Your task to perform on an android device: Show me the alarms in the clock app Image 0: 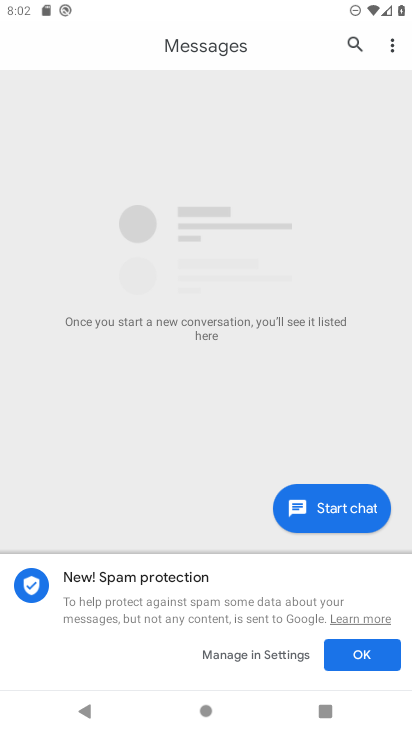
Step 0: press home button
Your task to perform on an android device: Show me the alarms in the clock app Image 1: 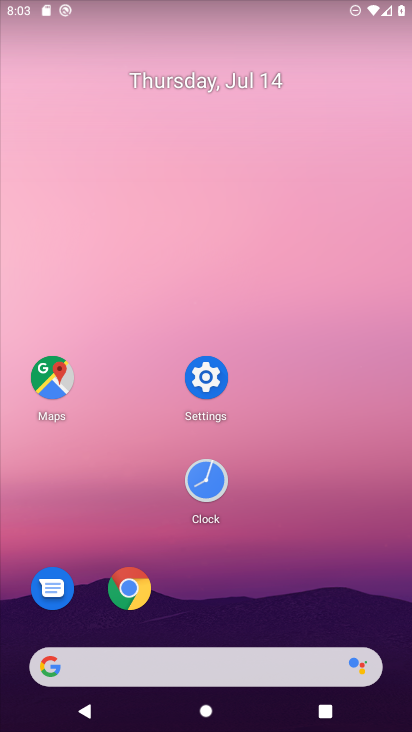
Step 1: click (200, 476)
Your task to perform on an android device: Show me the alarms in the clock app Image 2: 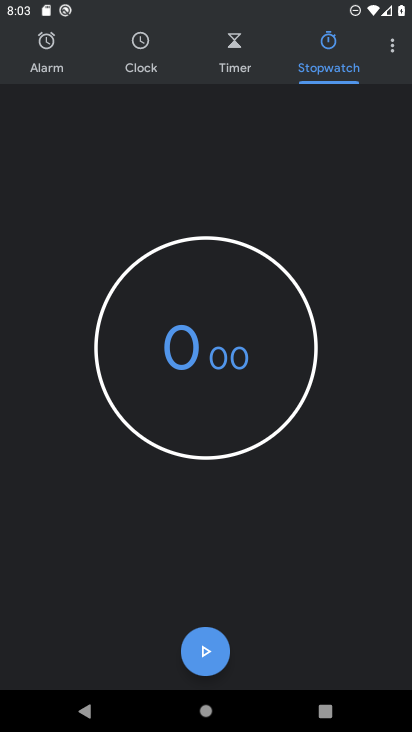
Step 2: click (45, 54)
Your task to perform on an android device: Show me the alarms in the clock app Image 3: 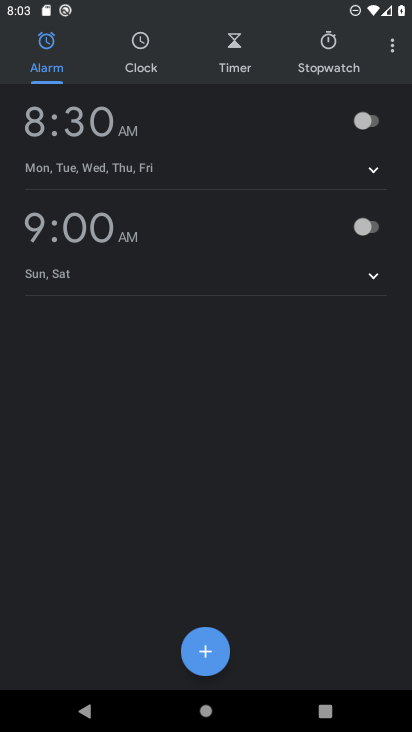
Step 3: task complete